Your task to perform on an android device: allow notifications from all sites in the chrome app Image 0: 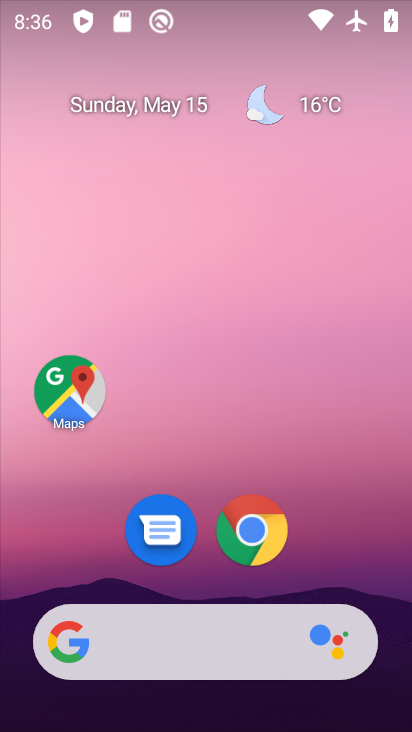
Step 0: click (252, 529)
Your task to perform on an android device: allow notifications from all sites in the chrome app Image 1: 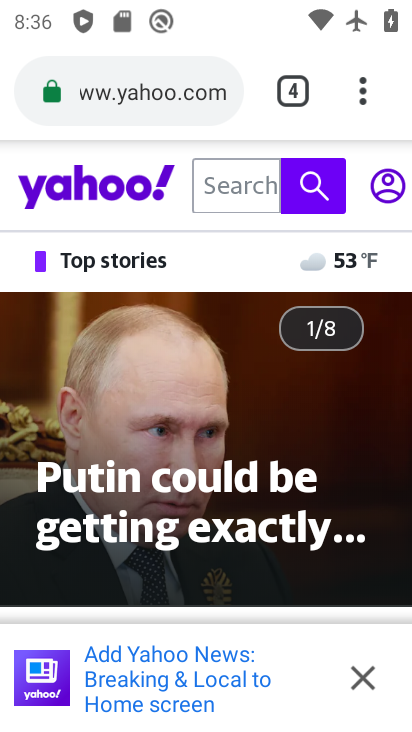
Step 1: click (361, 103)
Your task to perform on an android device: allow notifications from all sites in the chrome app Image 2: 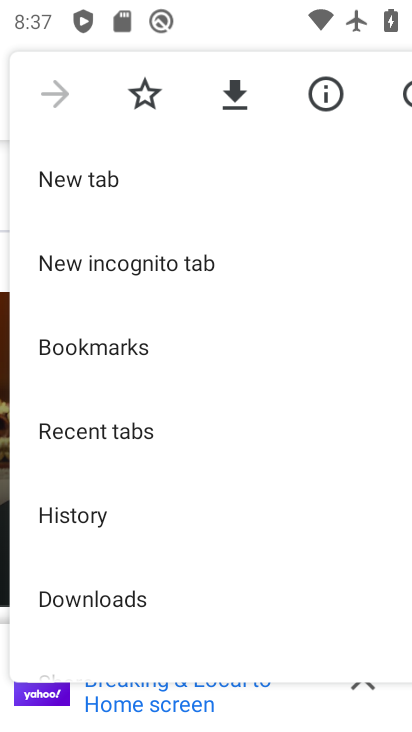
Step 2: drag from (163, 599) to (172, 144)
Your task to perform on an android device: allow notifications from all sites in the chrome app Image 3: 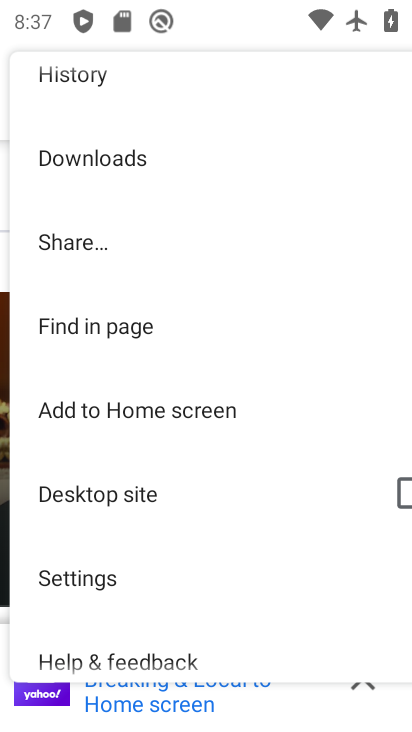
Step 3: click (93, 585)
Your task to perform on an android device: allow notifications from all sites in the chrome app Image 4: 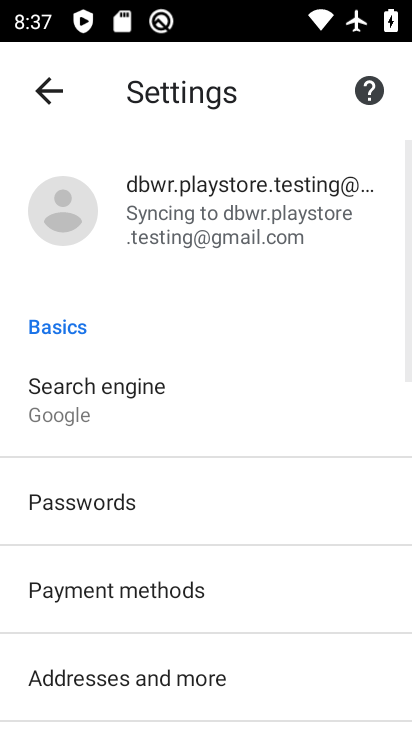
Step 4: drag from (131, 588) to (150, 289)
Your task to perform on an android device: allow notifications from all sites in the chrome app Image 5: 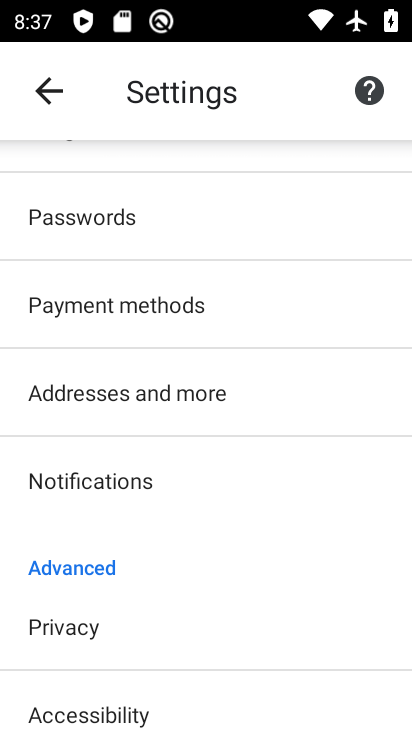
Step 5: drag from (97, 651) to (152, 215)
Your task to perform on an android device: allow notifications from all sites in the chrome app Image 6: 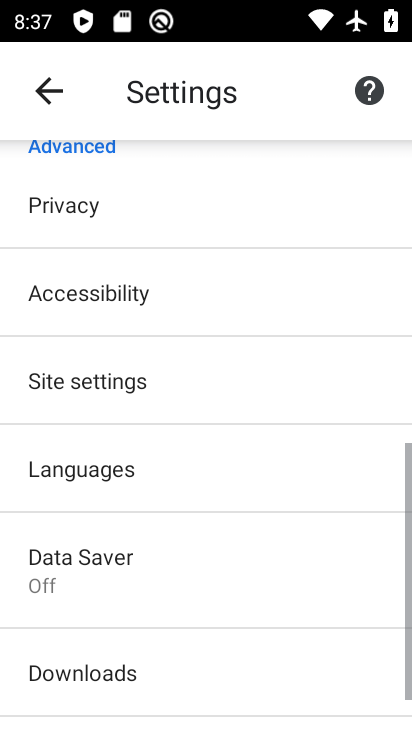
Step 6: click (105, 379)
Your task to perform on an android device: allow notifications from all sites in the chrome app Image 7: 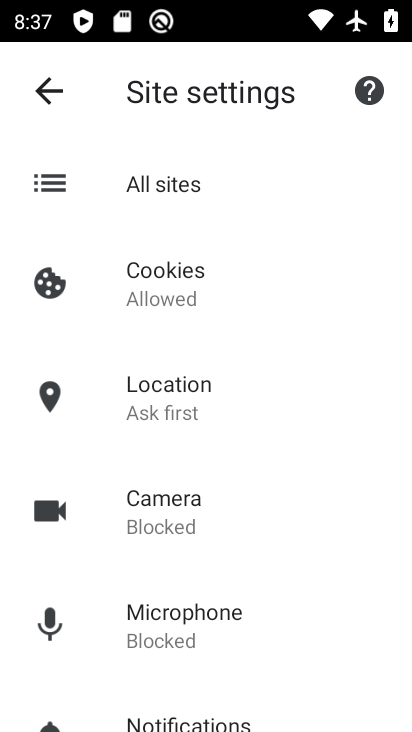
Step 7: drag from (146, 680) to (168, 318)
Your task to perform on an android device: allow notifications from all sites in the chrome app Image 8: 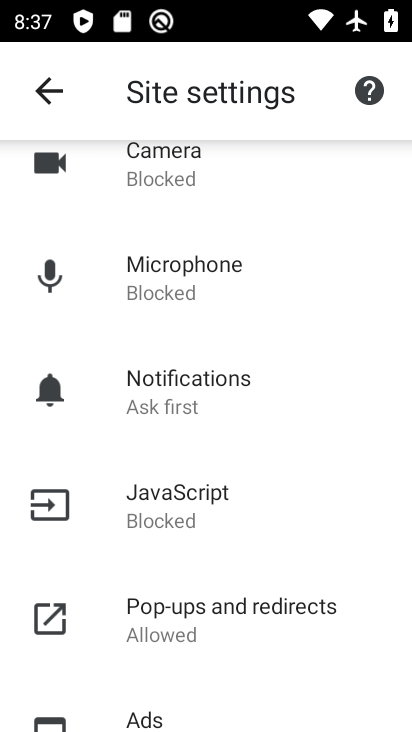
Step 8: click (185, 384)
Your task to perform on an android device: allow notifications from all sites in the chrome app Image 9: 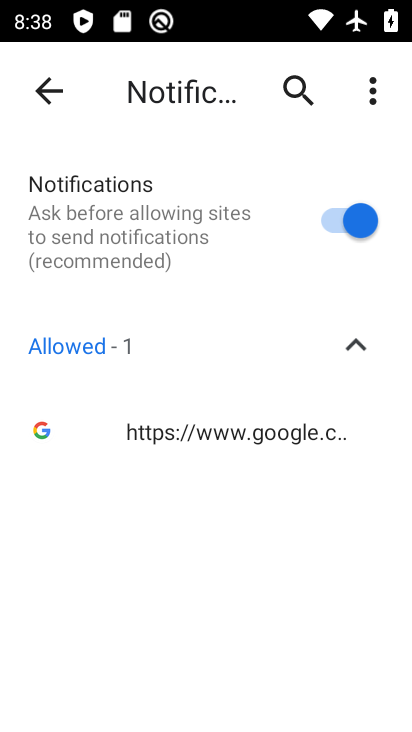
Step 9: task complete